Your task to perform on an android device: Open internet settings Image 0: 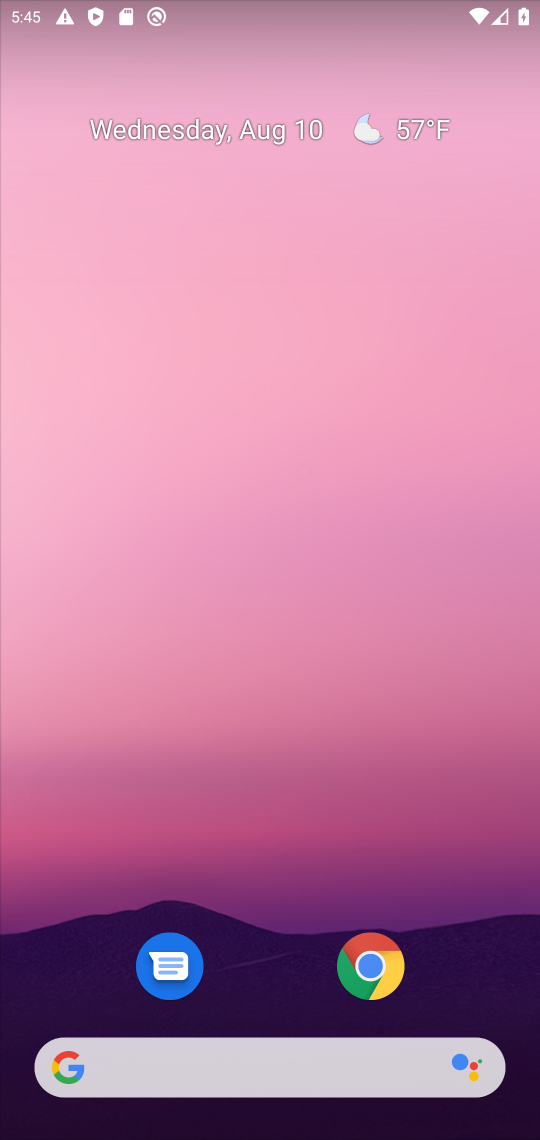
Step 0: press home button
Your task to perform on an android device: Open internet settings Image 1: 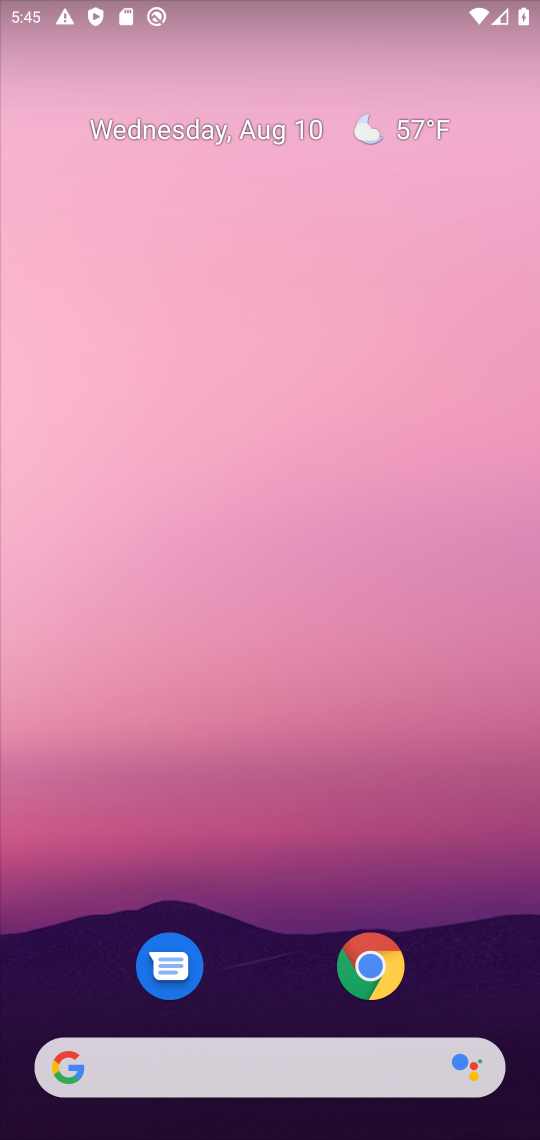
Step 1: drag from (321, 722) to (450, 92)
Your task to perform on an android device: Open internet settings Image 2: 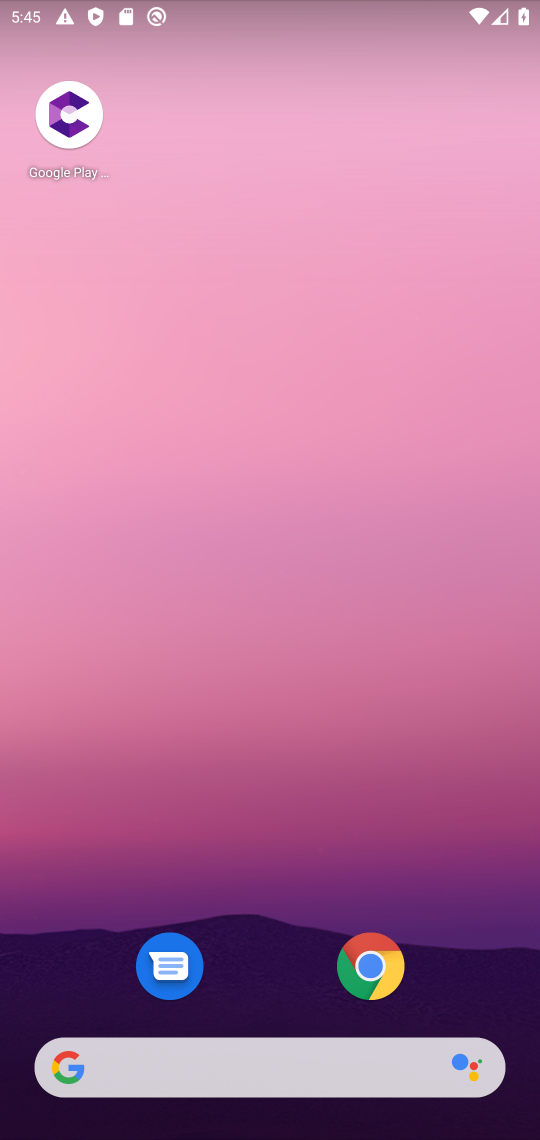
Step 2: drag from (253, 972) to (277, 85)
Your task to perform on an android device: Open internet settings Image 3: 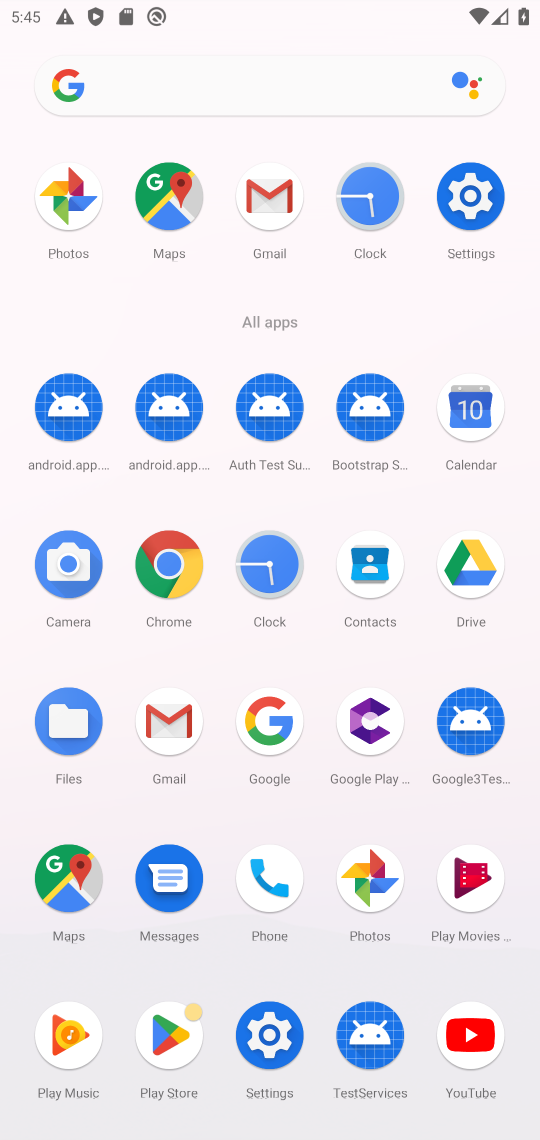
Step 3: click (475, 204)
Your task to perform on an android device: Open internet settings Image 4: 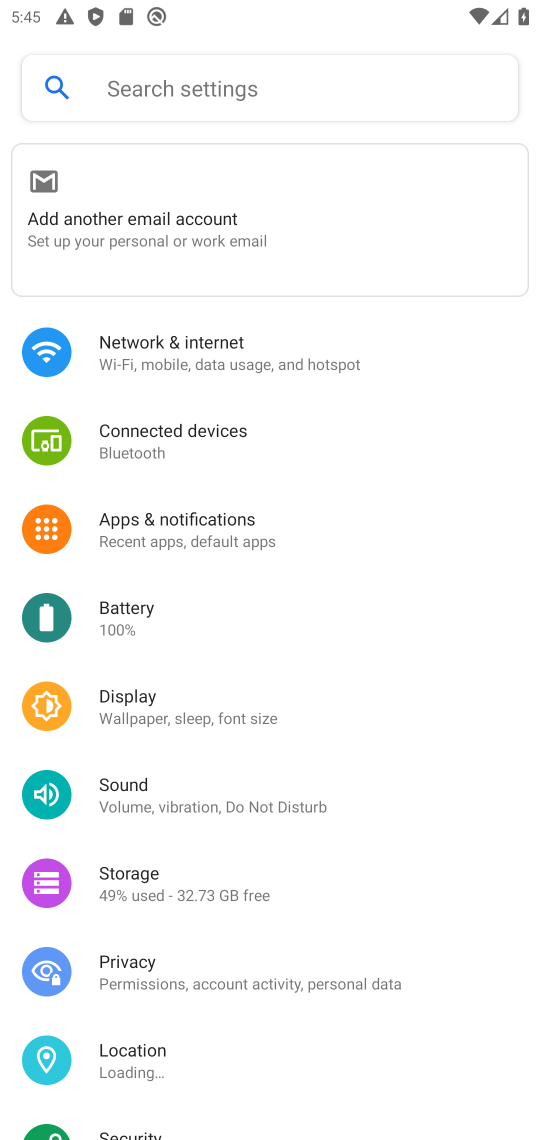
Step 4: click (149, 361)
Your task to perform on an android device: Open internet settings Image 5: 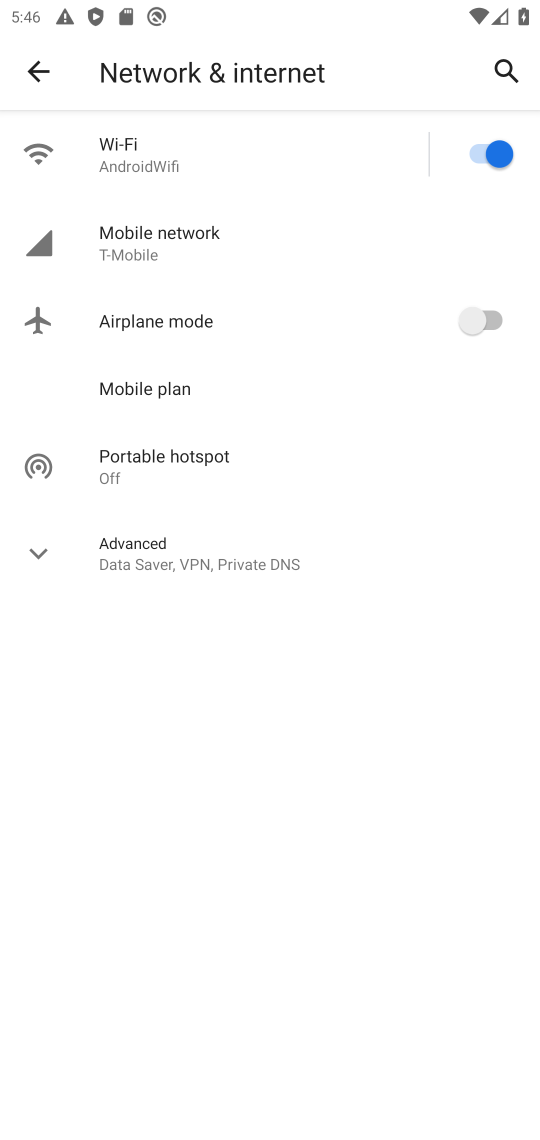
Step 5: task complete